Your task to perform on an android device: Add "usb-c to usb-b" to the cart on bestbuy.com Image 0: 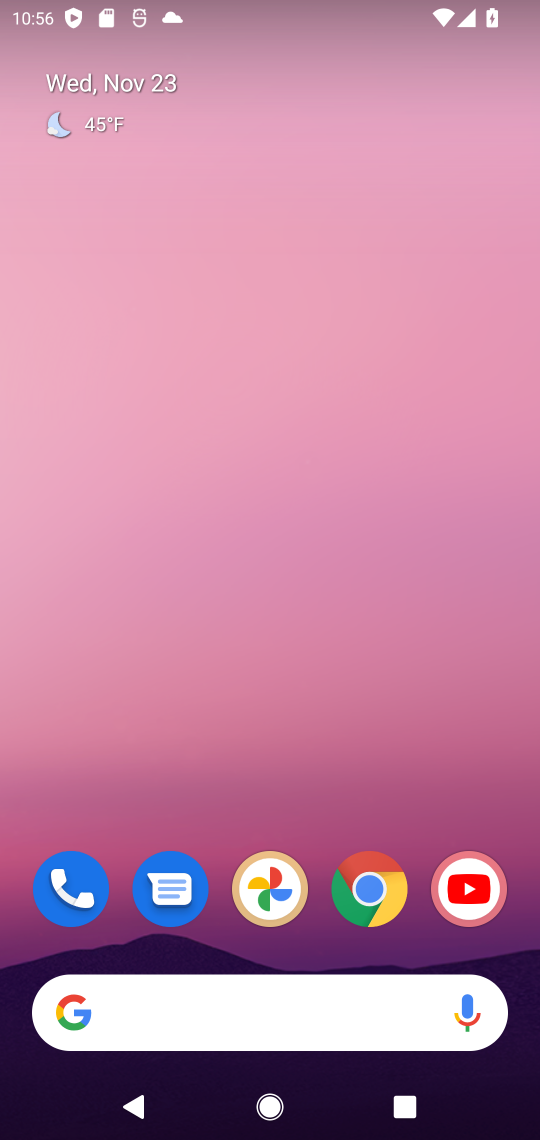
Step 0: click (377, 898)
Your task to perform on an android device: Add "usb-c to usb-b" to the cart on bestbuy.com Image 1: 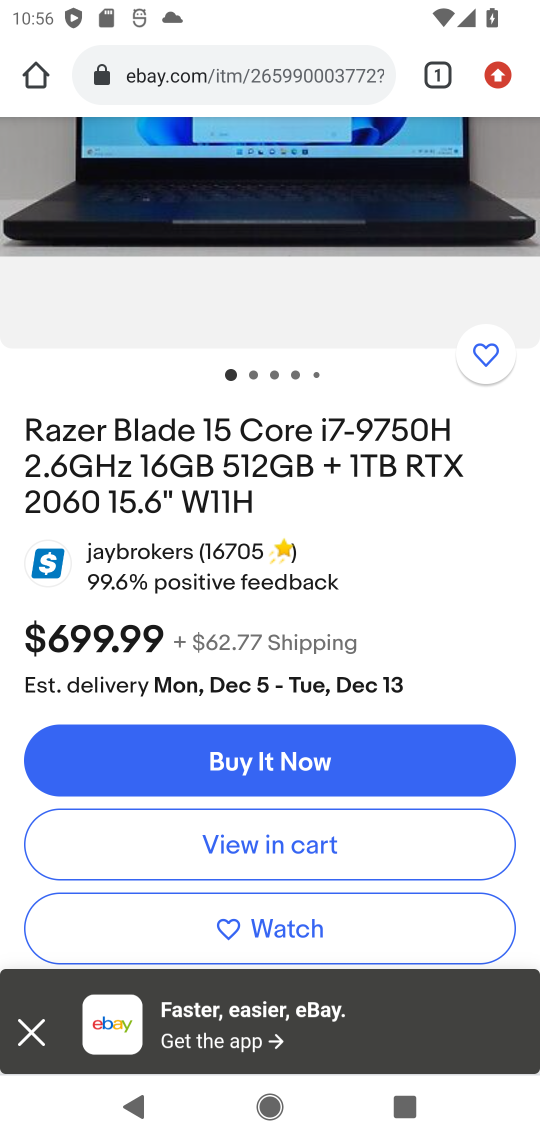
Step 1: click (238, 79)
Your task to perform on an android device: Add "usb-c to usb-b" to the cart on bestbuy.com Image 2: 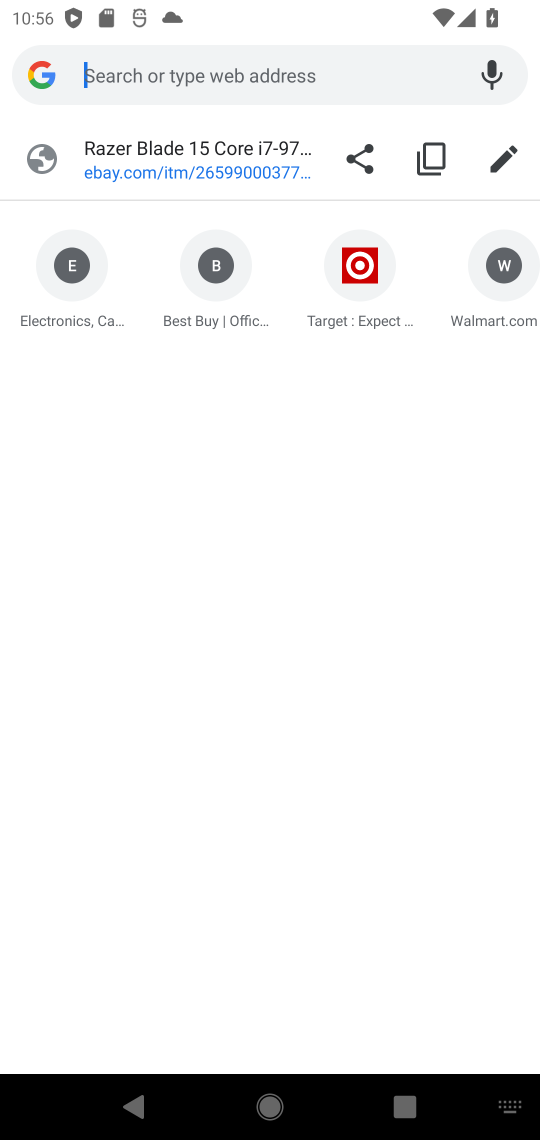
Step 2: click (200, 290)
Your task to perform on an android device: Add "usb-c to usb-b" to the cart on bestbuy.com Image 3: 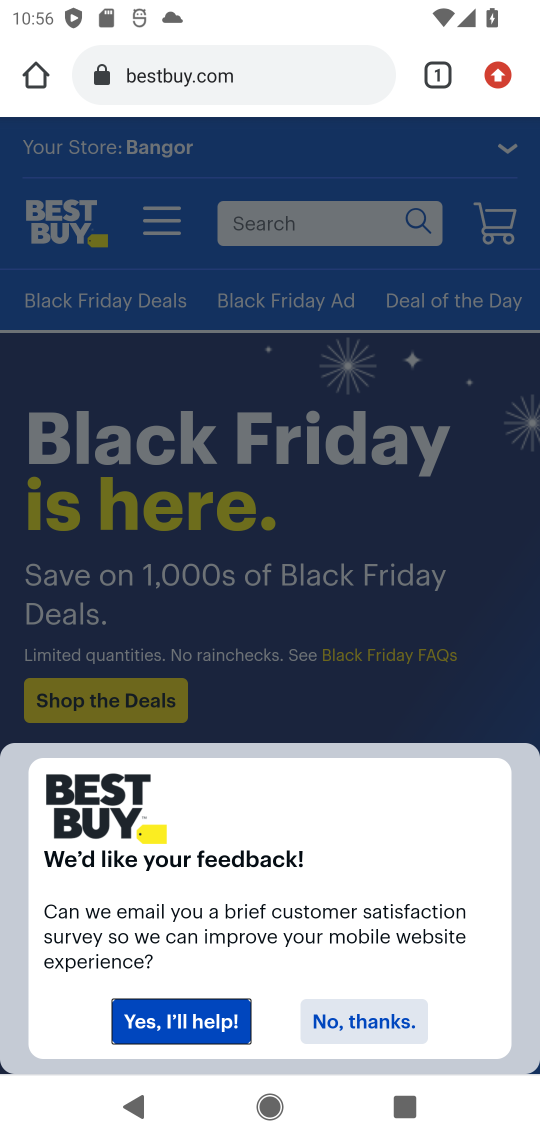
Step 3: click (387, 1028)
Your task to perform on an android device: Add "usb-c to usb-b" to the cart on bestbuy.com Image 4: 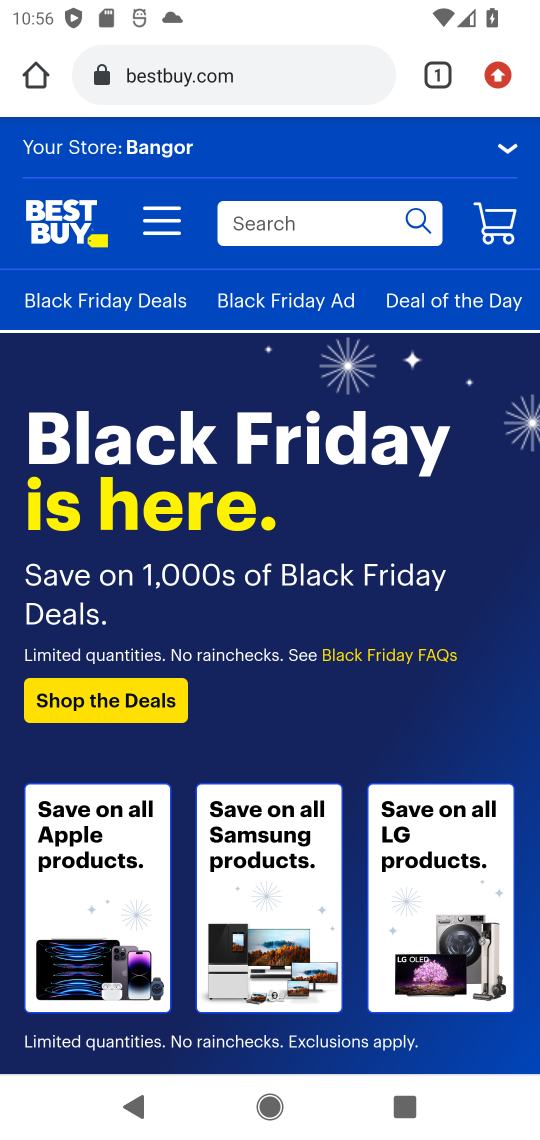
Step 4: click (245, 213)
Your task to perform on an android device: Add "usb-c to usb-b" to the cart on bestbuy.com Image 5: 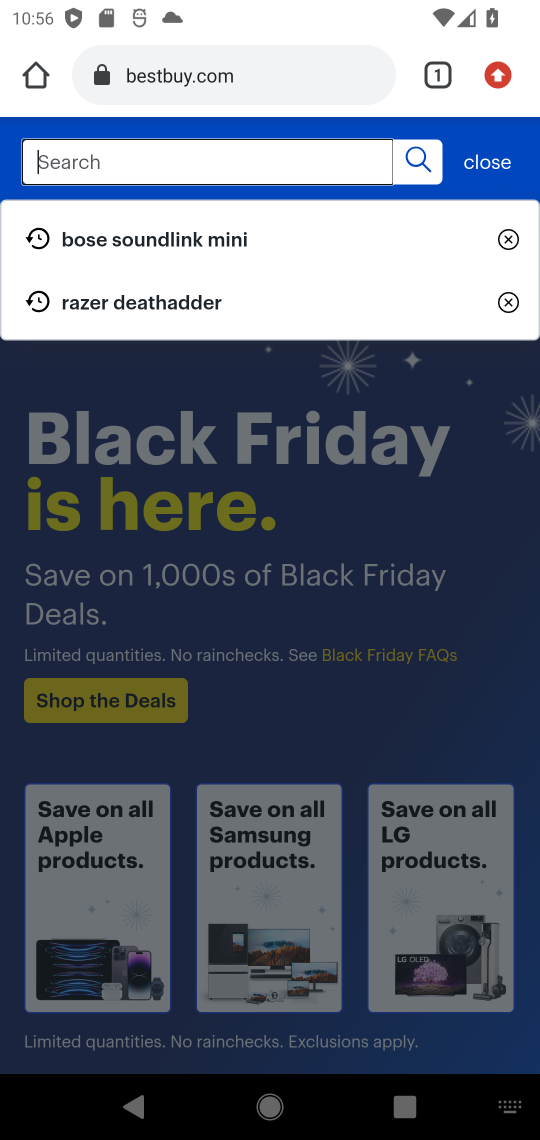
Step 5: type "usb-c to usb-b"
Your task to perform on an android device: Add "usb-c to usb-b" to the cart on bestbuy.com Image 6: 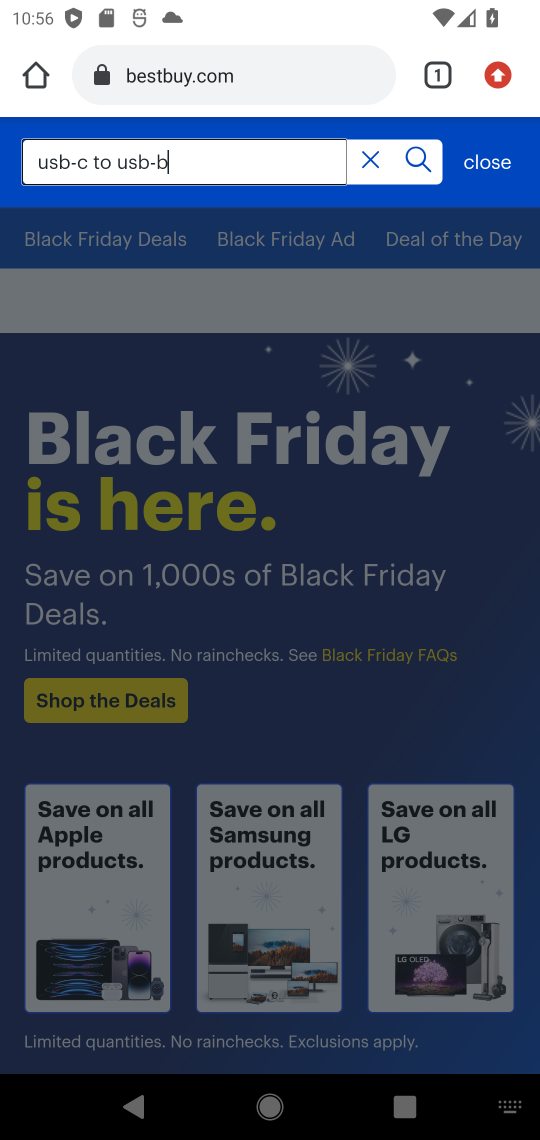
Step 6: click (420, 161)
Your task to perform on an android device: Add "usb-c to usb-b" to the cart on bestbuy.com Image 7: 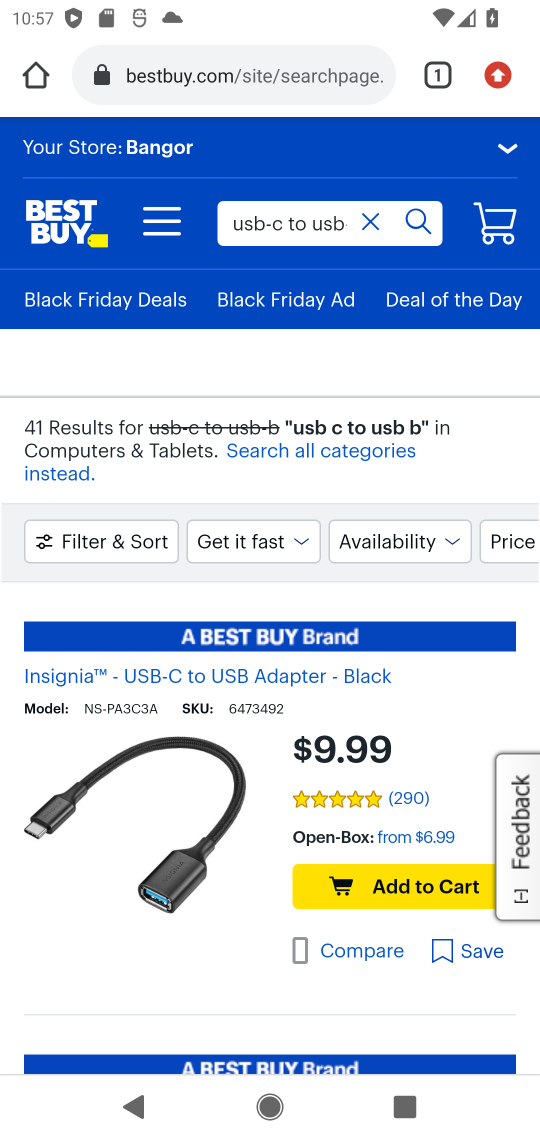
Step 7: task complete